Your task to perform on an android device: Open the calendar and show me this week's events? Image 0: 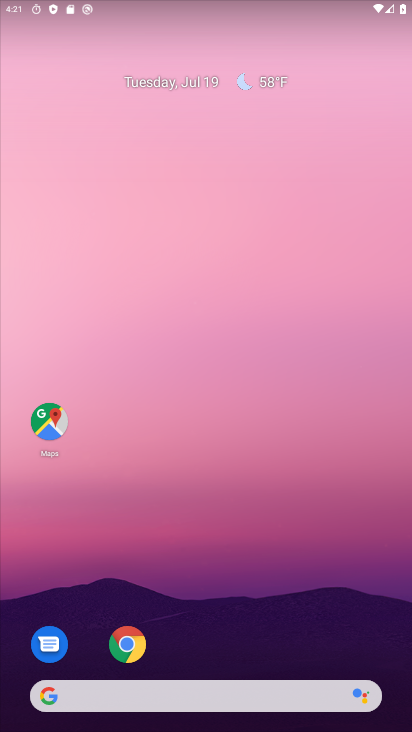
Step 0: drag from (308, 651) to (234, 125)
Your task to perform on an android device: Open the calendar and show me this week's events? Image 1: 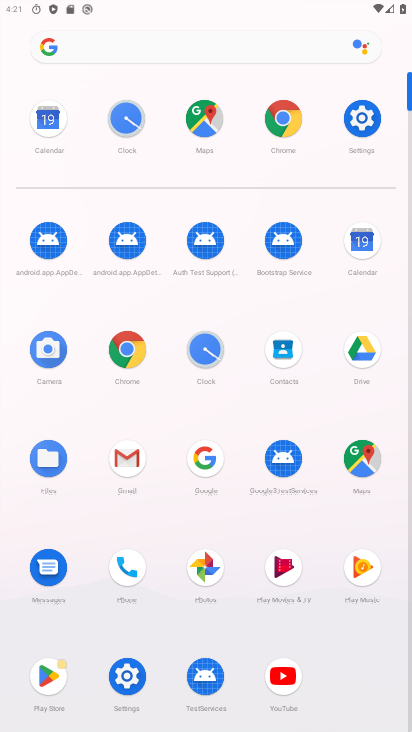
Step 1: click (356, 248)
Your task to perform on an android device: Open the calendar and show me this week's events? Image 2: 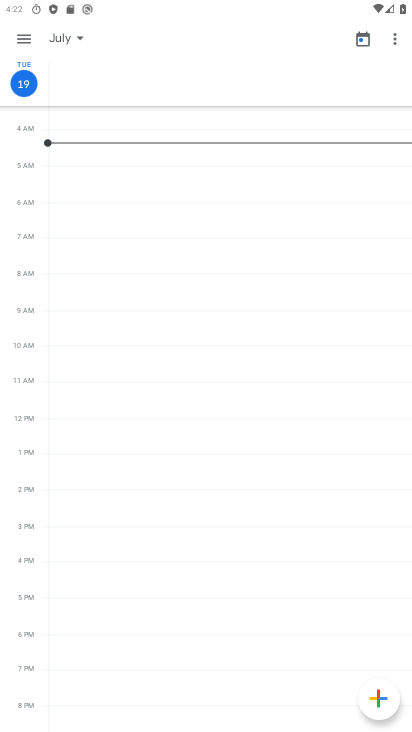
Step 2: click (18, 33)
Your task to perform on an android device: Open the calendar and show me this week's events? Image 3: 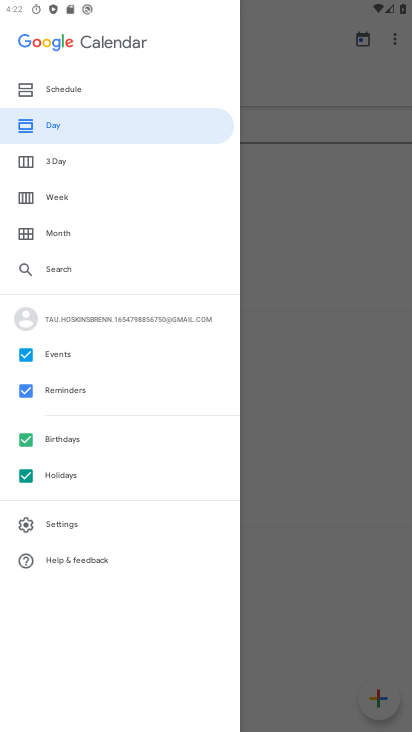
Step 3: click (67, 186)
Your task to perform on an android device: Open the calendar and show me this week's events? Image 4: 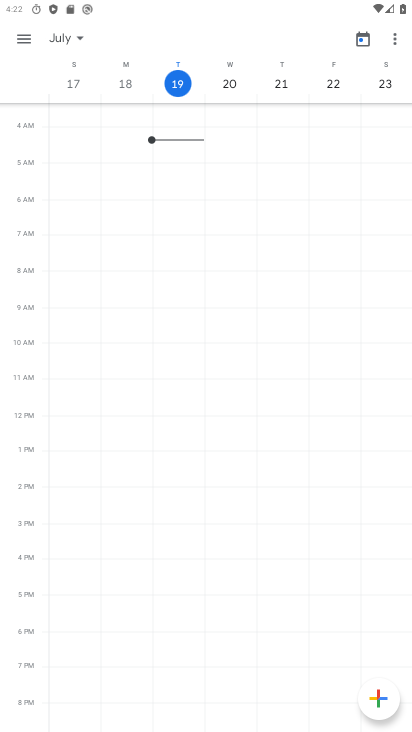
Step 4: task complete